Your task to perform on an android device: uninstall "Truecaller" Image 0: 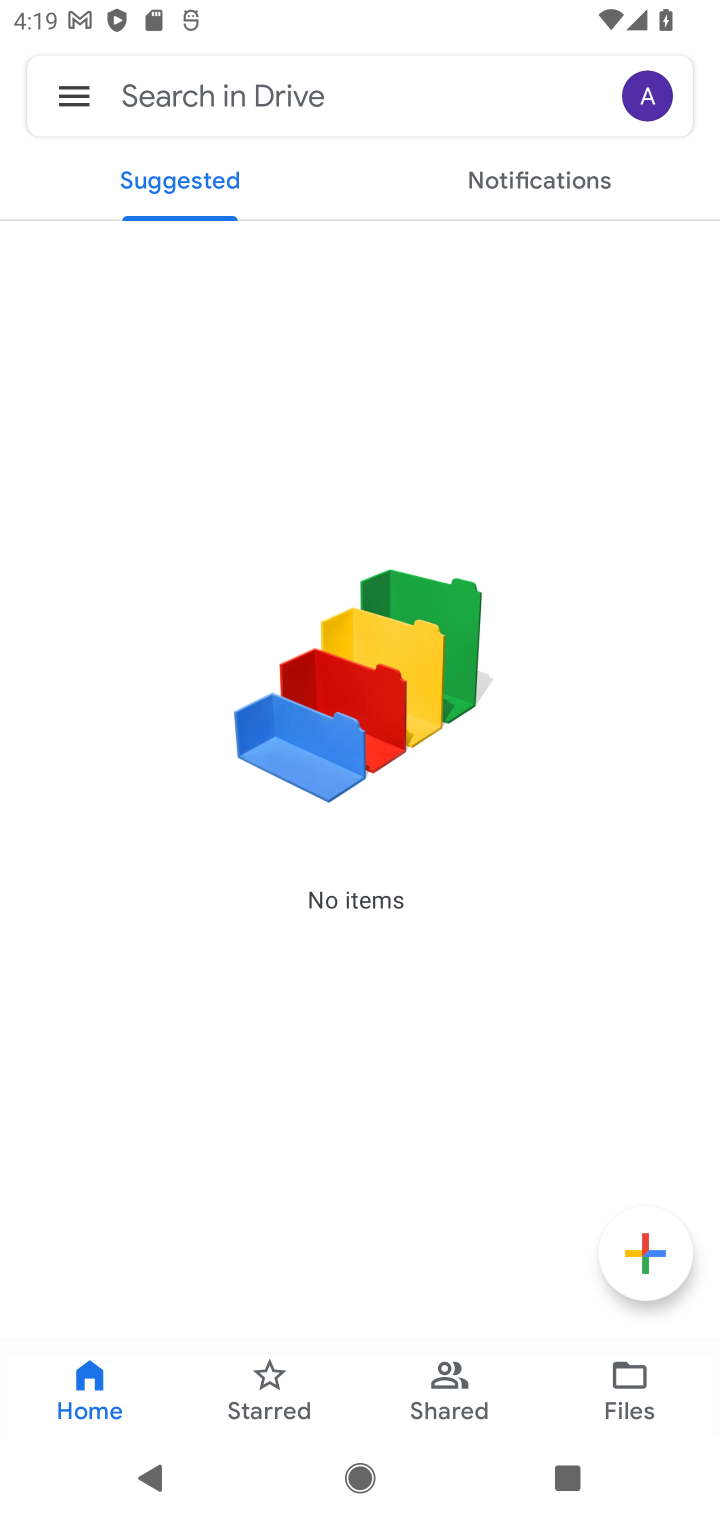
Step 0: press home button
Your task to perform on an android device: uninstall "Truecaller" Image 1: 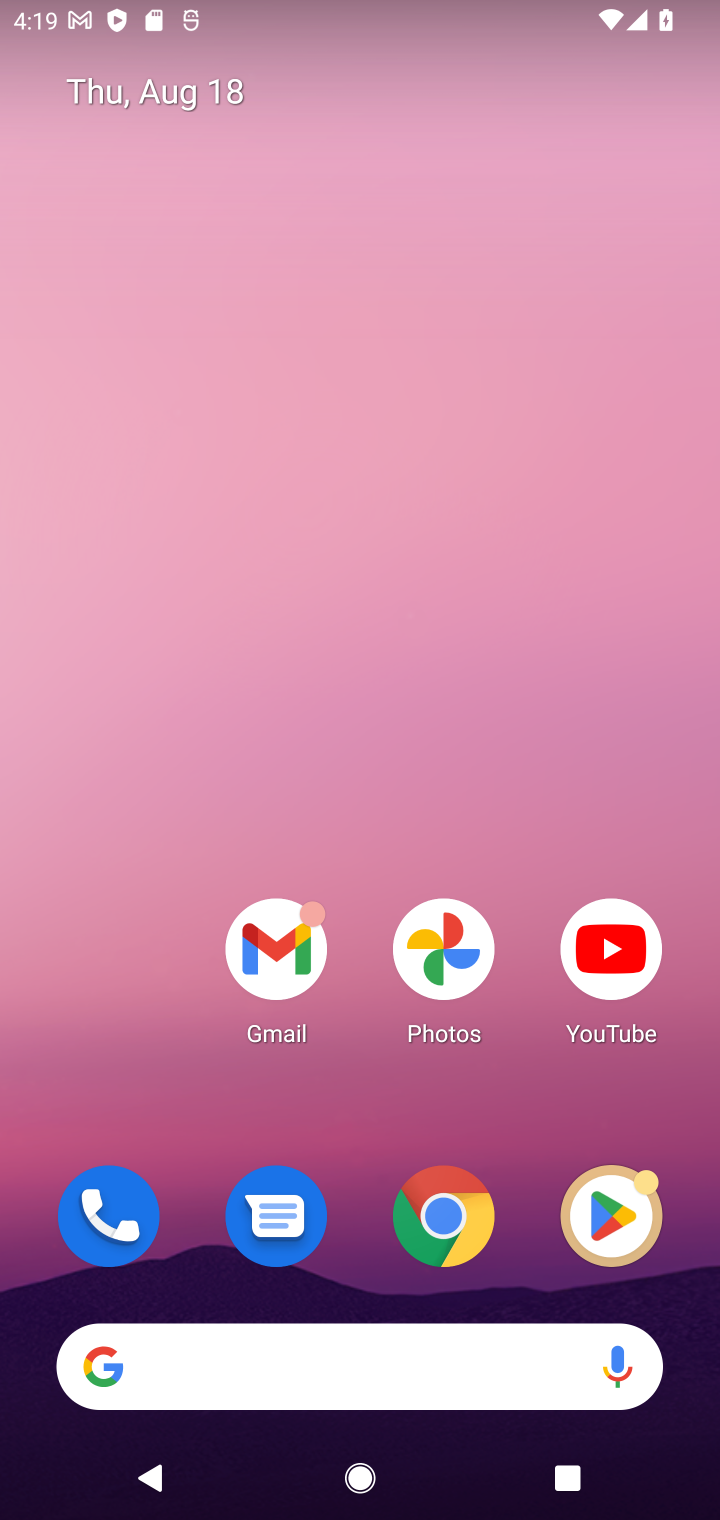
Step 1: click (613, 1215)
Your task to perform on an android device: uninstall "Truecaller" Image 2: 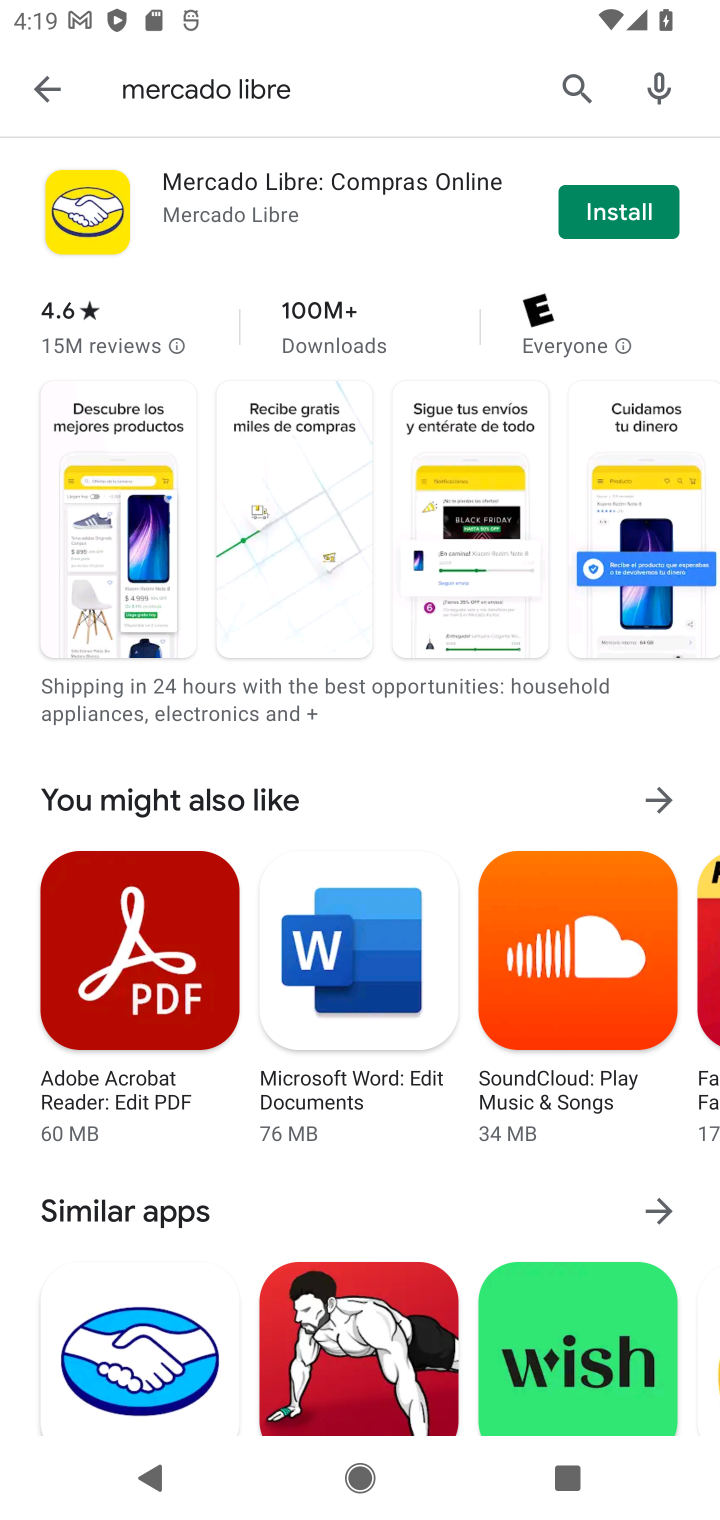
Step 2: click (578, 82)
Your task to perform on an android device: uninstall "Truecaller" Image 3: 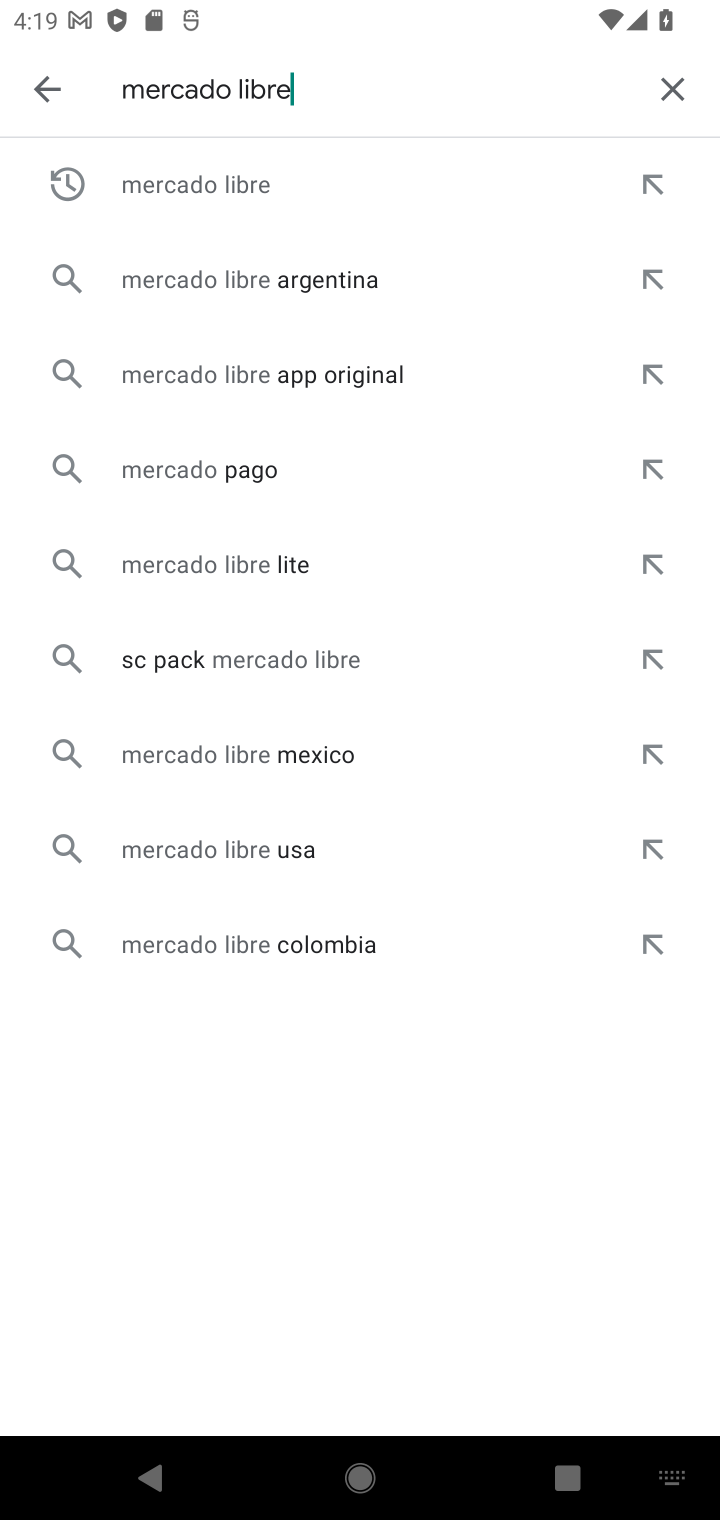
Step 3: click (670, 85)
Your task to perform on an android device: uninstall "Truecaller" Image 4: 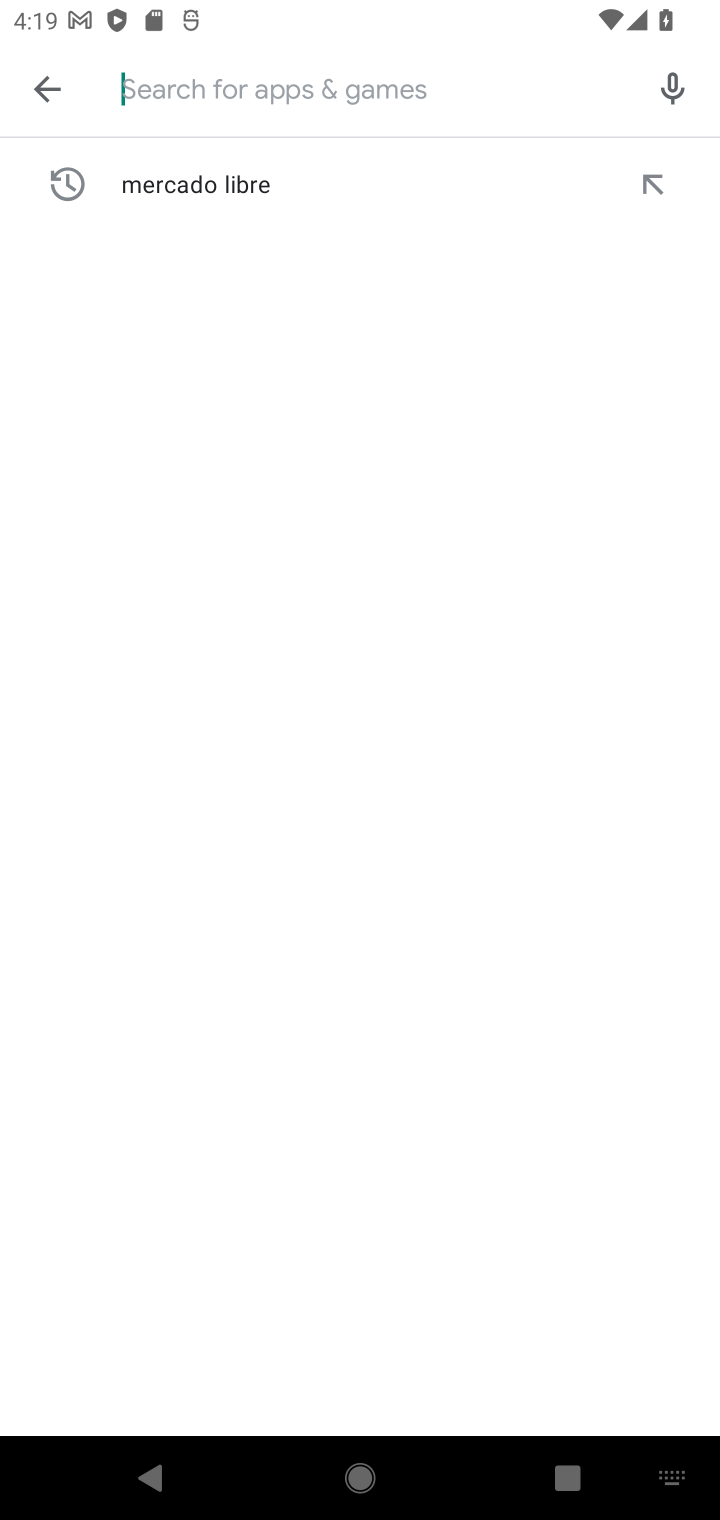
Step 4: type "Truecaller"
Your task to perform on an android device: uninstall "Truecaller" Image 5: 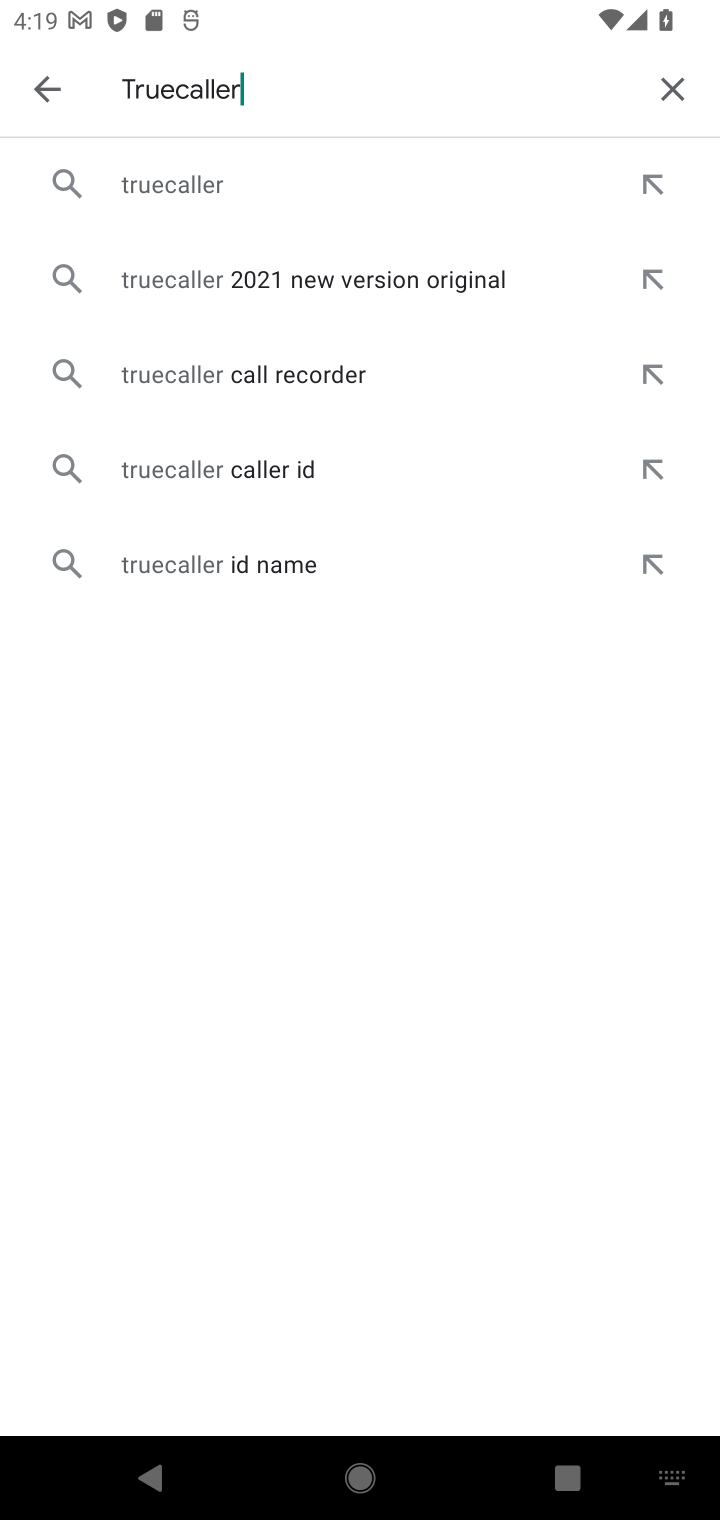
Step 5: click (158, 179)
Your task to perform on an android device: uninstall "Truecaller" Image 6: 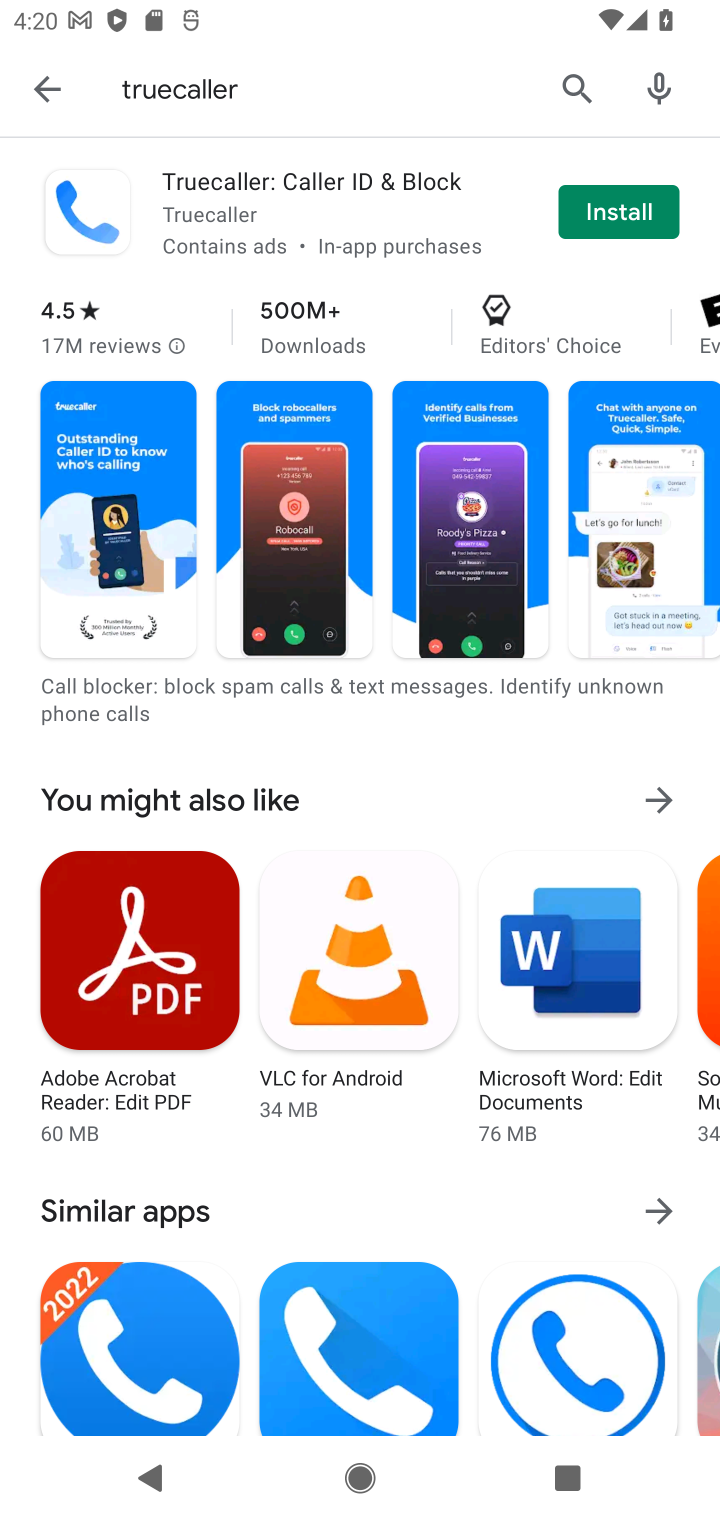
Step 6: task complete